Your task to perform on an android device: change keyboard looks Image 0: 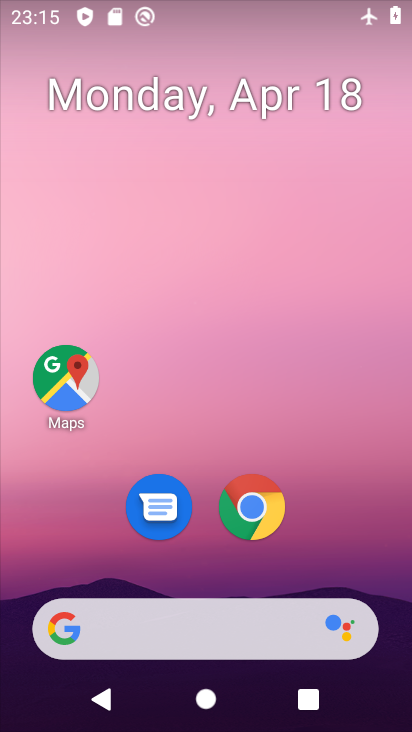
Step 0: drag from (339, 534) to (372, 55)
Your task to perform on an android device: change keyboard looks Image 1: 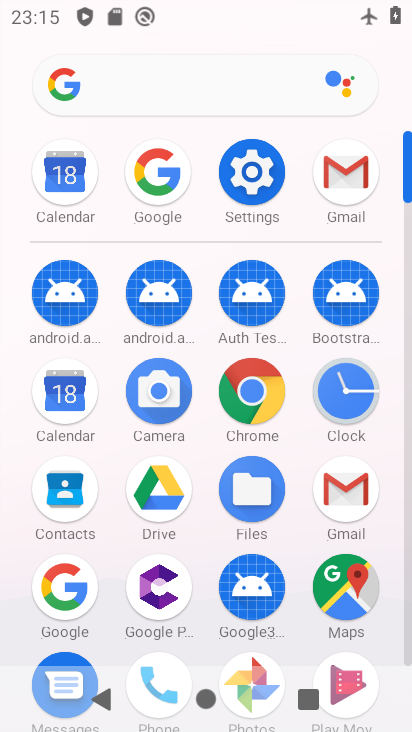
Step 1: click (260, 157)
Your task to perform on an android device: change keyboard looks Image 2: 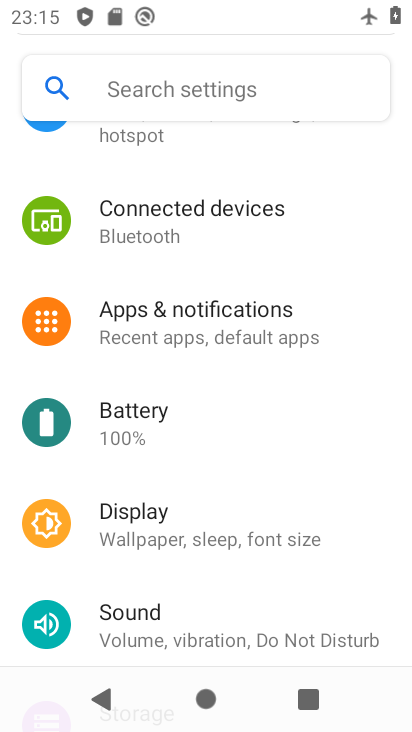
Step 2: drag from (242, 579) to (323, 174)
Your task to perform on an android device: change keyboard looks Image 3: 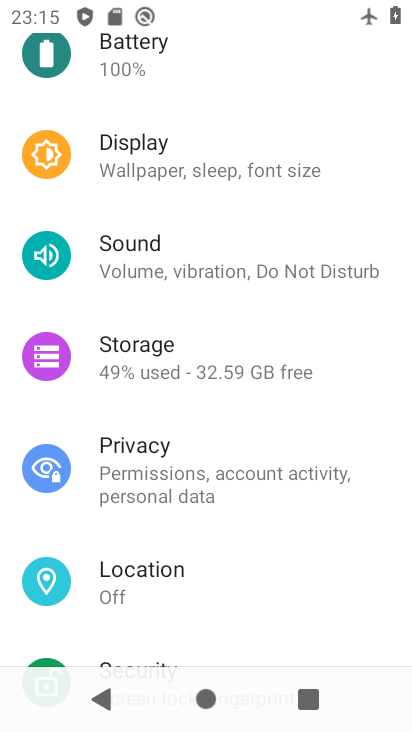
Step 3: drag from (266, 554) to (274, 191)
Your task to perform on an android device: change keyboard looks Image 4: 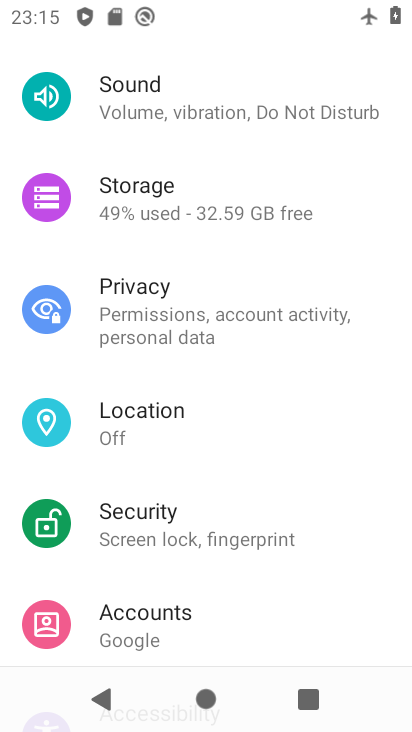
Step 4: drag from (245, 572) to (262, 99)
Your task to perform on an android device: change keyboard looks Image 5: 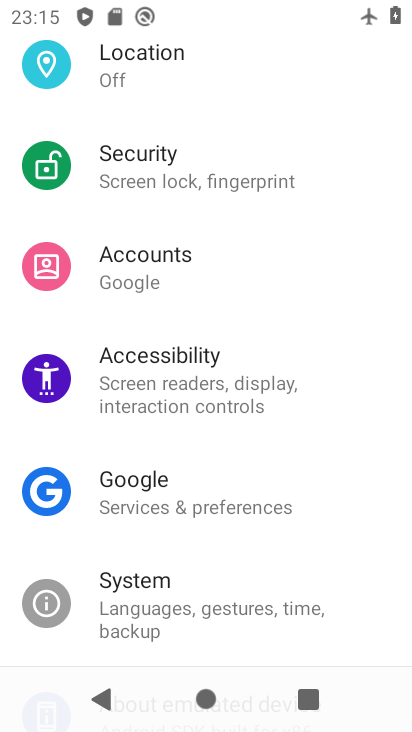
Step 5: drag from (264, 507) to (260, 159)
Your task to perform on an android device: change keyboard looks Image 6: 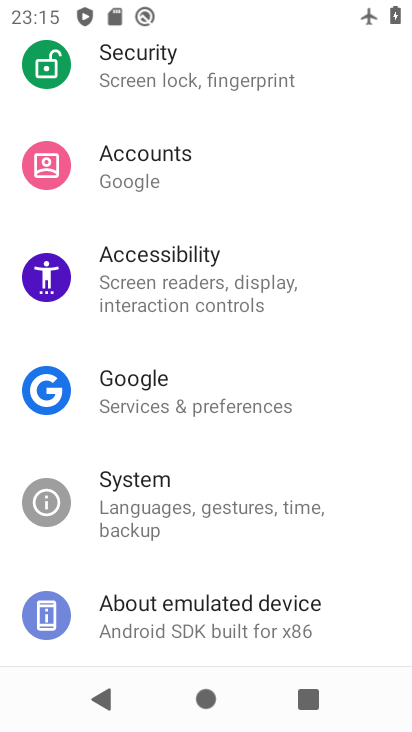
Step 6: click (211, 507)
Your task to perform on an android device: change keyboard looks Image 7: 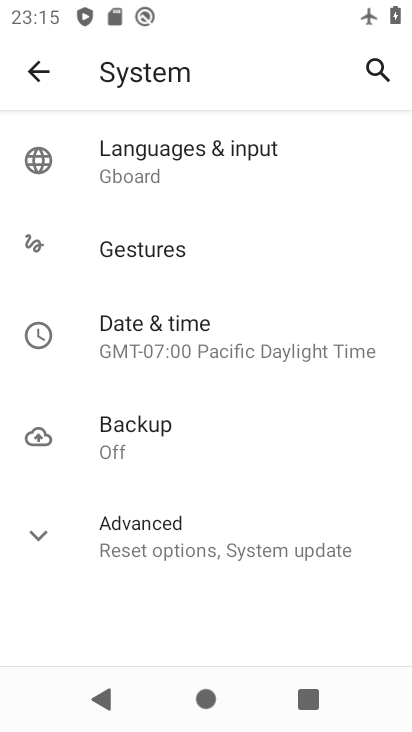
Step 7: click (226, 158)
Your task to perform on an android device: change keyboard looks Image 8: 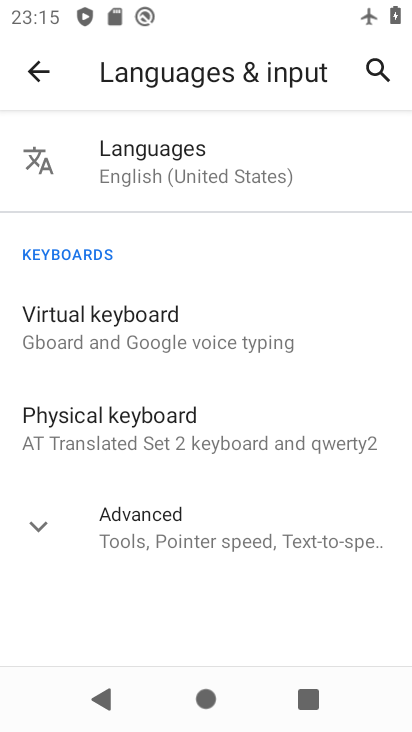
Step 8: click (178, 317)
Your task to perform on an android device: change keyboard looks Image 9: 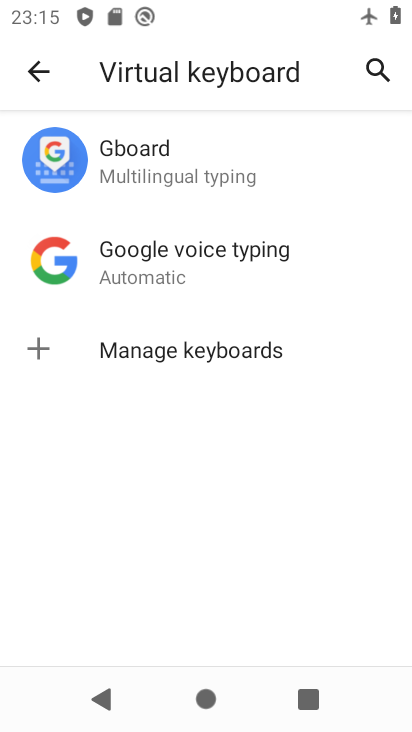
Step 9: click (220, 166)
Your task to perform on an android device: change keyboard looks Image 10: 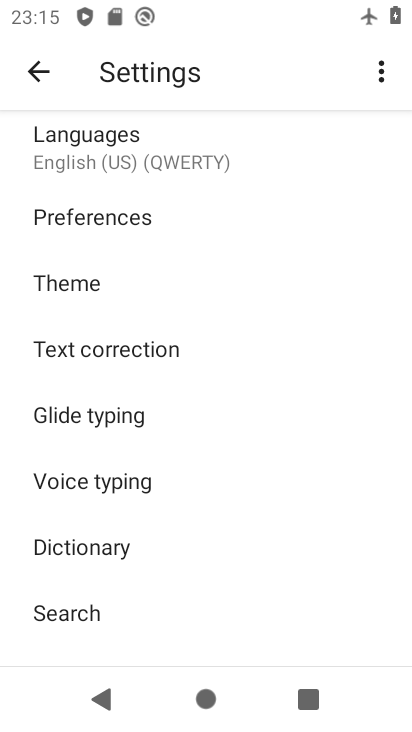
Step 10: click (152, 285)
Your task to perform on an android device: change keyboard looks Image 11: 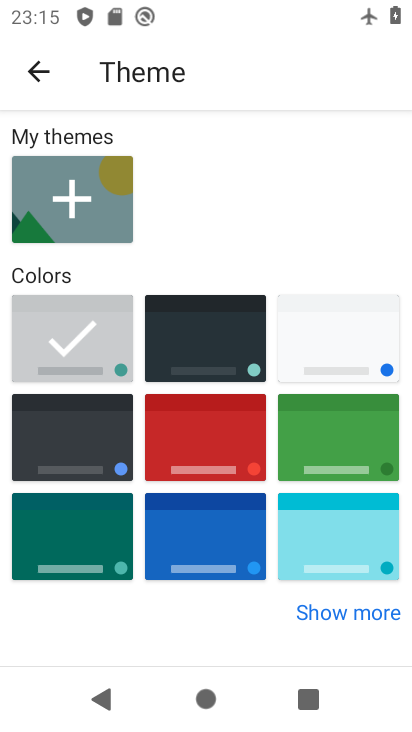
Step 11: click (180, 334)
Your task to perform on an android device: change keyboard looks Image 12: 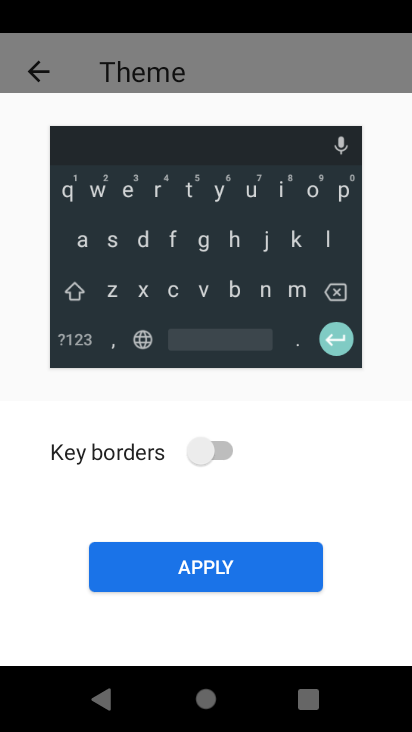
Step 12: click (217, 443)
Your task to perform on an android device: change keyboard looks Image 13: 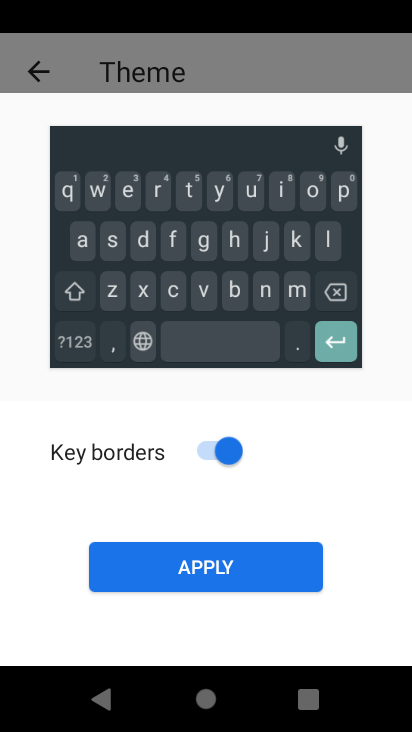
Step 13: click (222, 564)
Your task to perform on an android device: change keyboard looks Image 14: 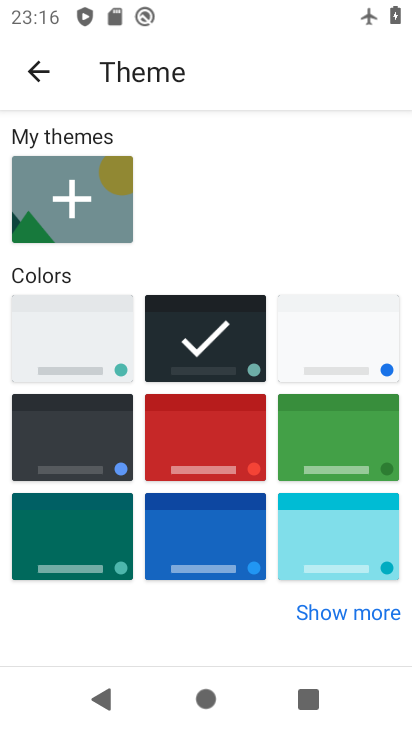
Step 14: task complete